Your task to perform on an android device: Open eBay Image 0: 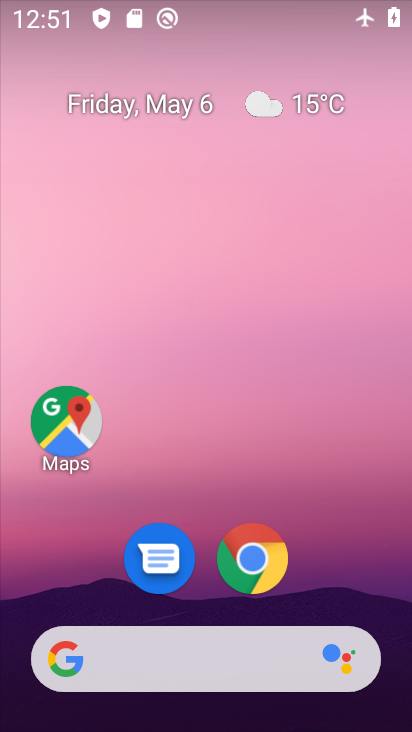
Step 0: drag from (207, 713) to (180, 145)
Your task to perform on an android device: Open eBay Image 1: 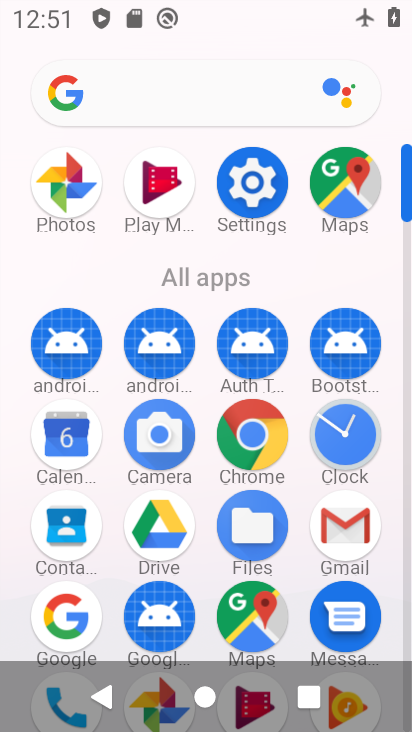
Step 1: click (253, 439)
Your task to perform on an android device: Open eBay Image 2: 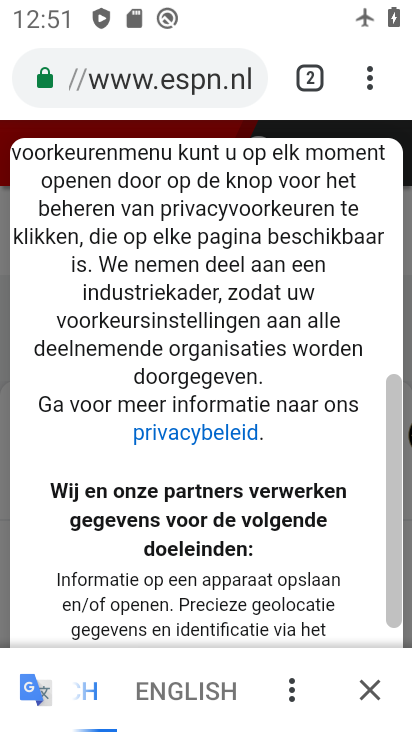
Step 2: drag from (370, 88) to (93, 154)
Your task to perform on an android device: Open eBay Image 3: 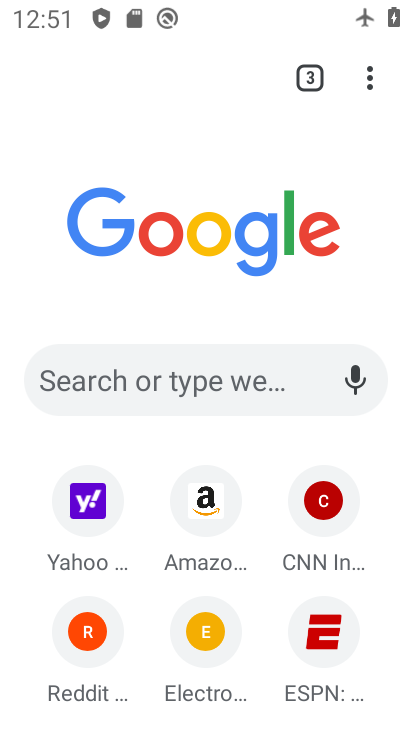
Step 3: click (223, 379)
Your task to perform on an android device: Open eBay Image 4: 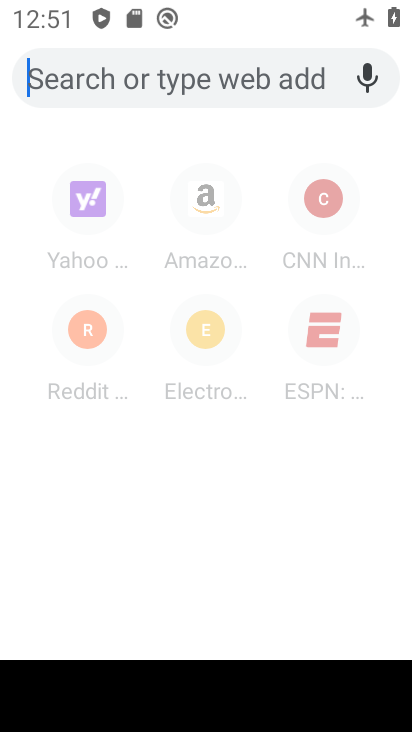
Step 4: type "eBay"
Your task to perform on an android device: Open eBay Image 5: 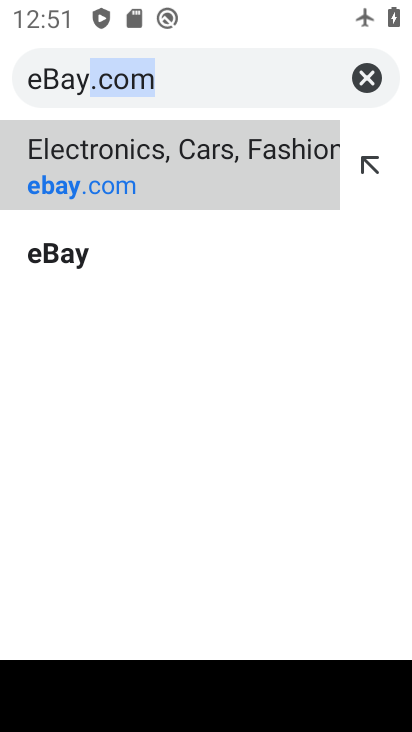
Step 5: type ""
Your task to perform on an android device: Open eBay Image 6: 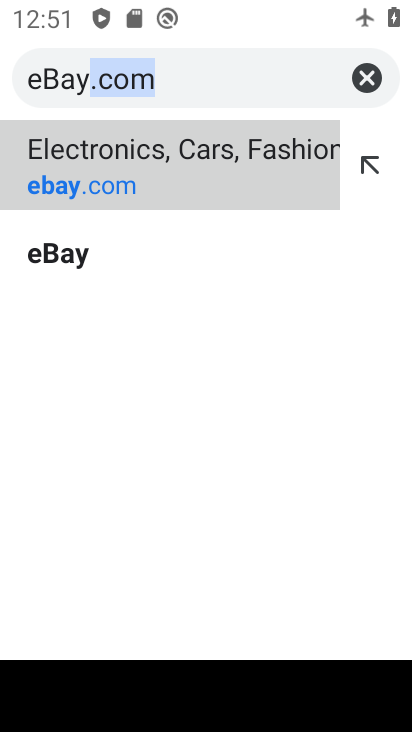
Step 6: click (70, 248)
Your task to perform on an android device: Open eBay Image 7: 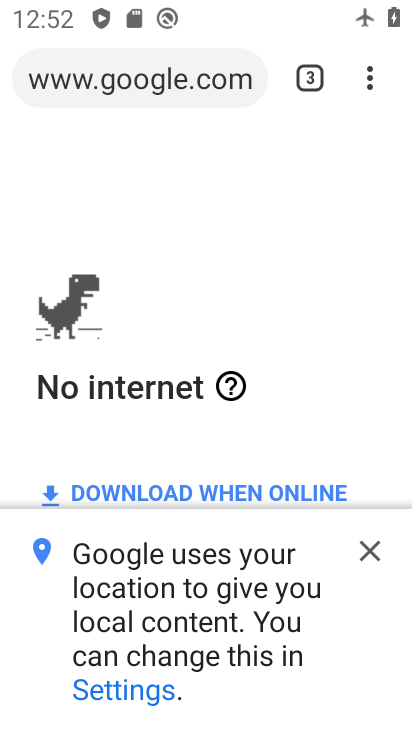
Step 7: task complete